Your task to perform on an android device: open app "Venmo" Image 0: 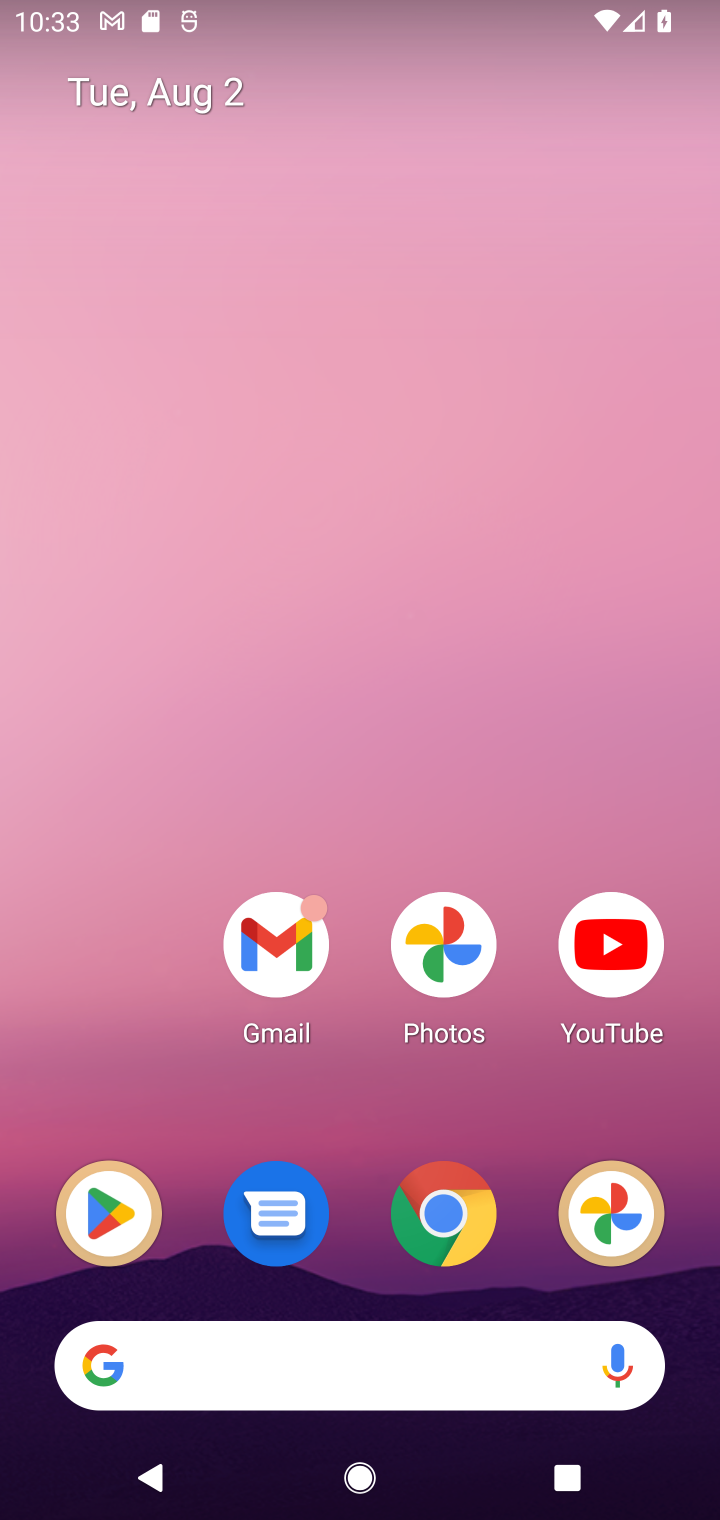
Step 0: click (121, 1236)
Your task to perform on an android device: open app "Venmo" Image 1: 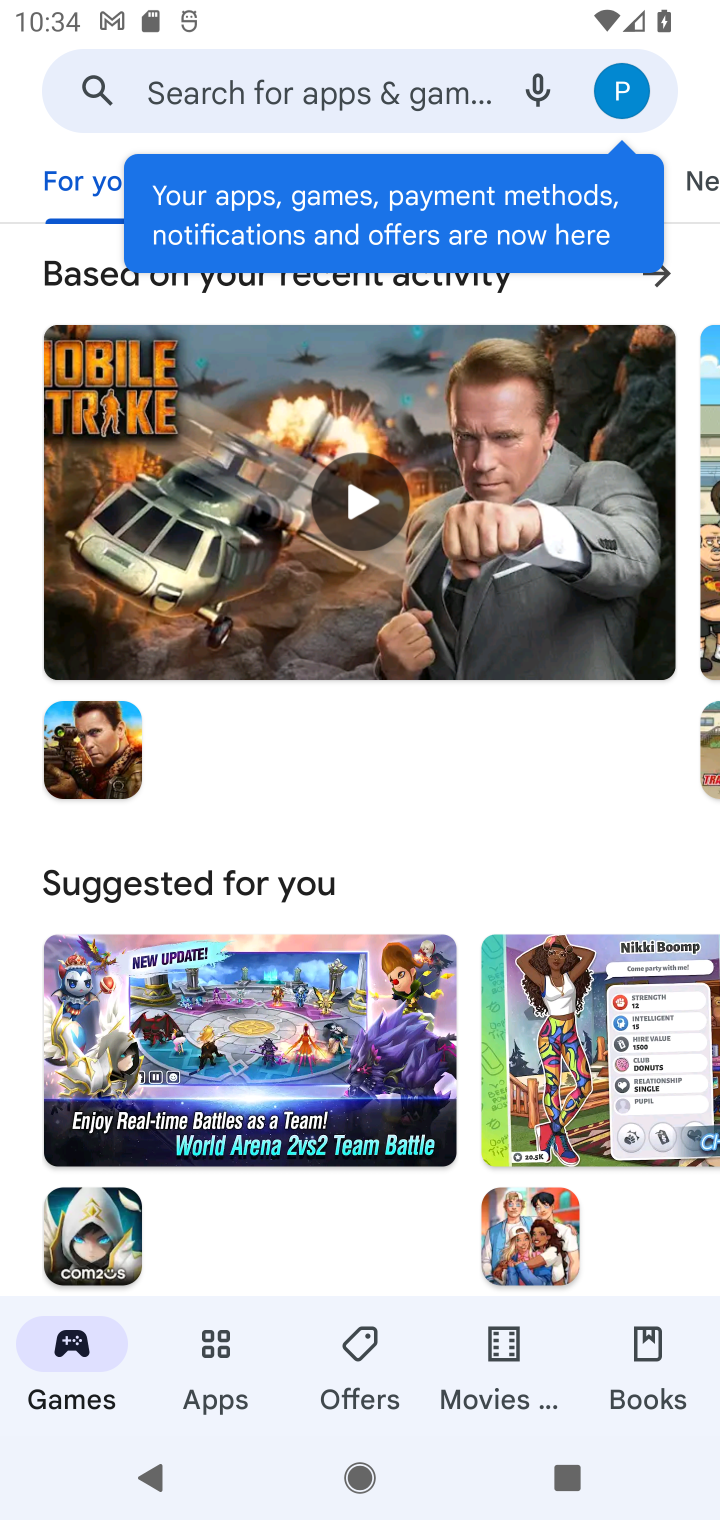
Step 1: click (214, 1396)
Your task to perform on an android device: open app "Venmo" Image 2: 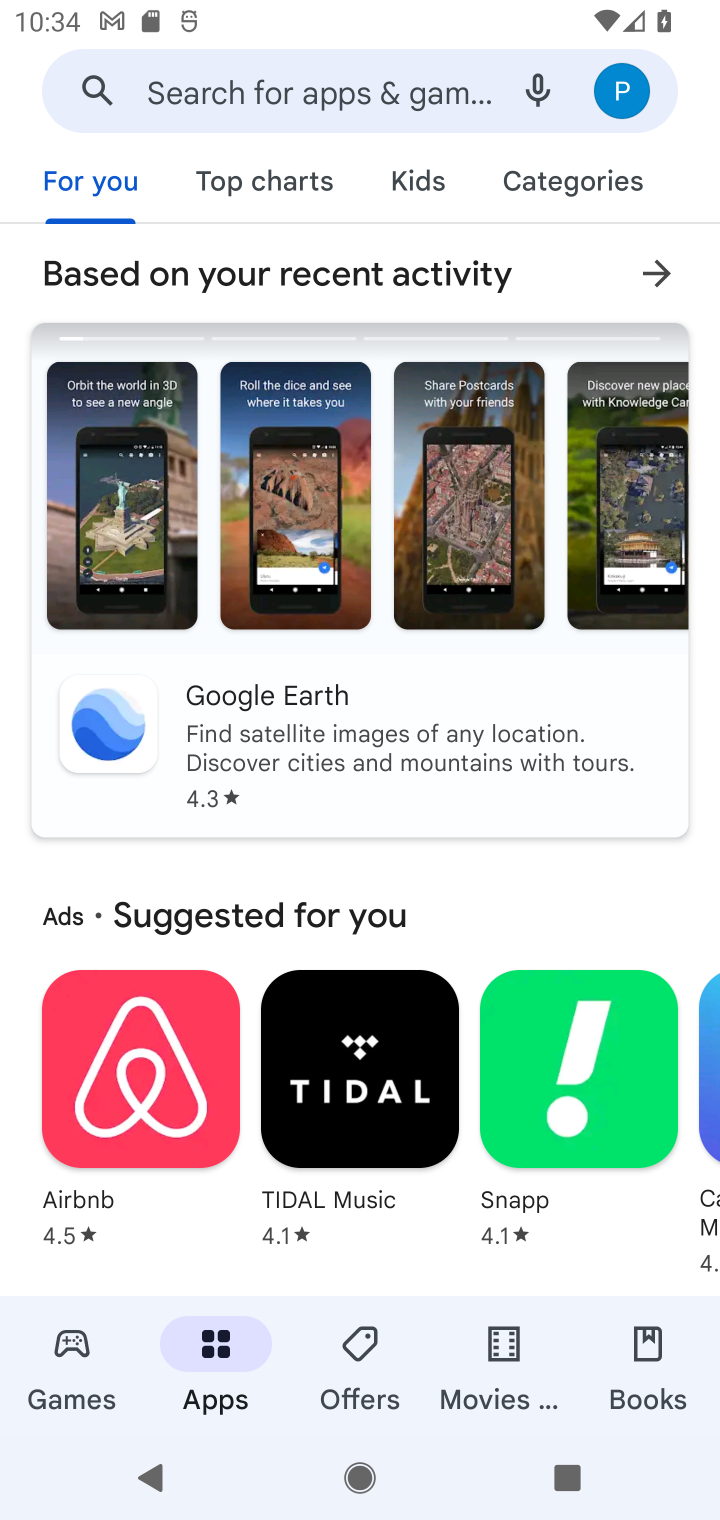
Step 2: click (297, 108)
Your task to perform on an android device: open app "Venmo" Image 3: 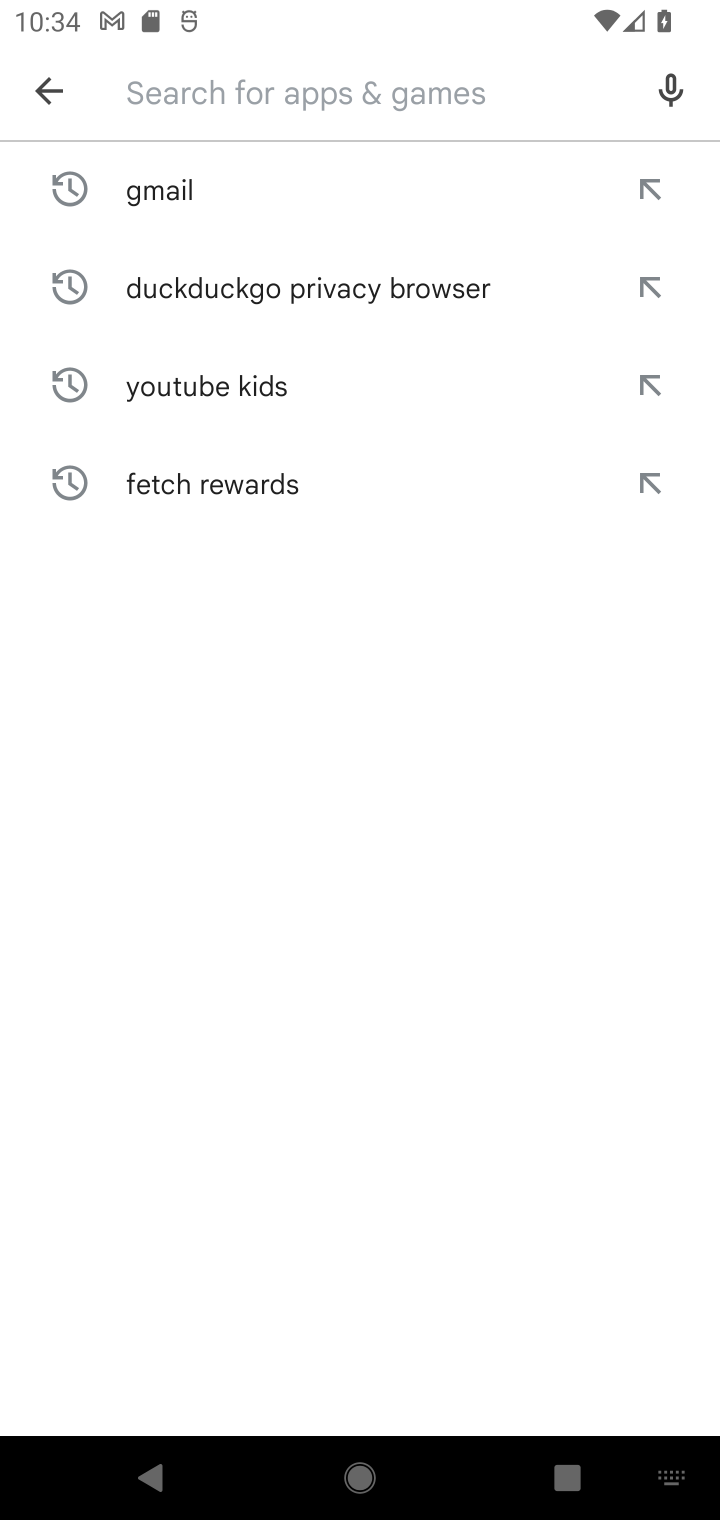
Step 3: type "Venmo"
Your task to perform on an android device: open app "Venmo" Image 4: 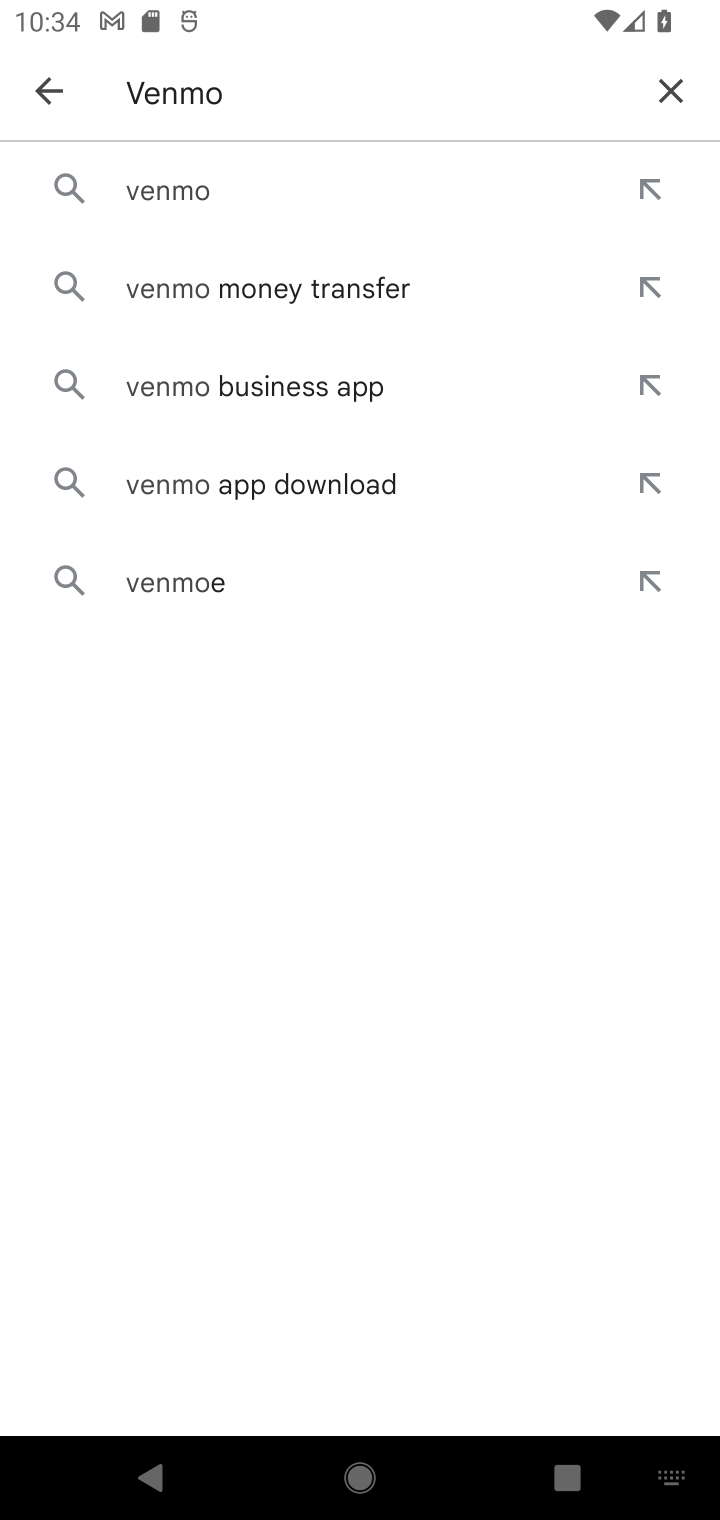
Step 4: click (179, 169)
Your task to perform on an android device: open app "Venmo" Image 5: 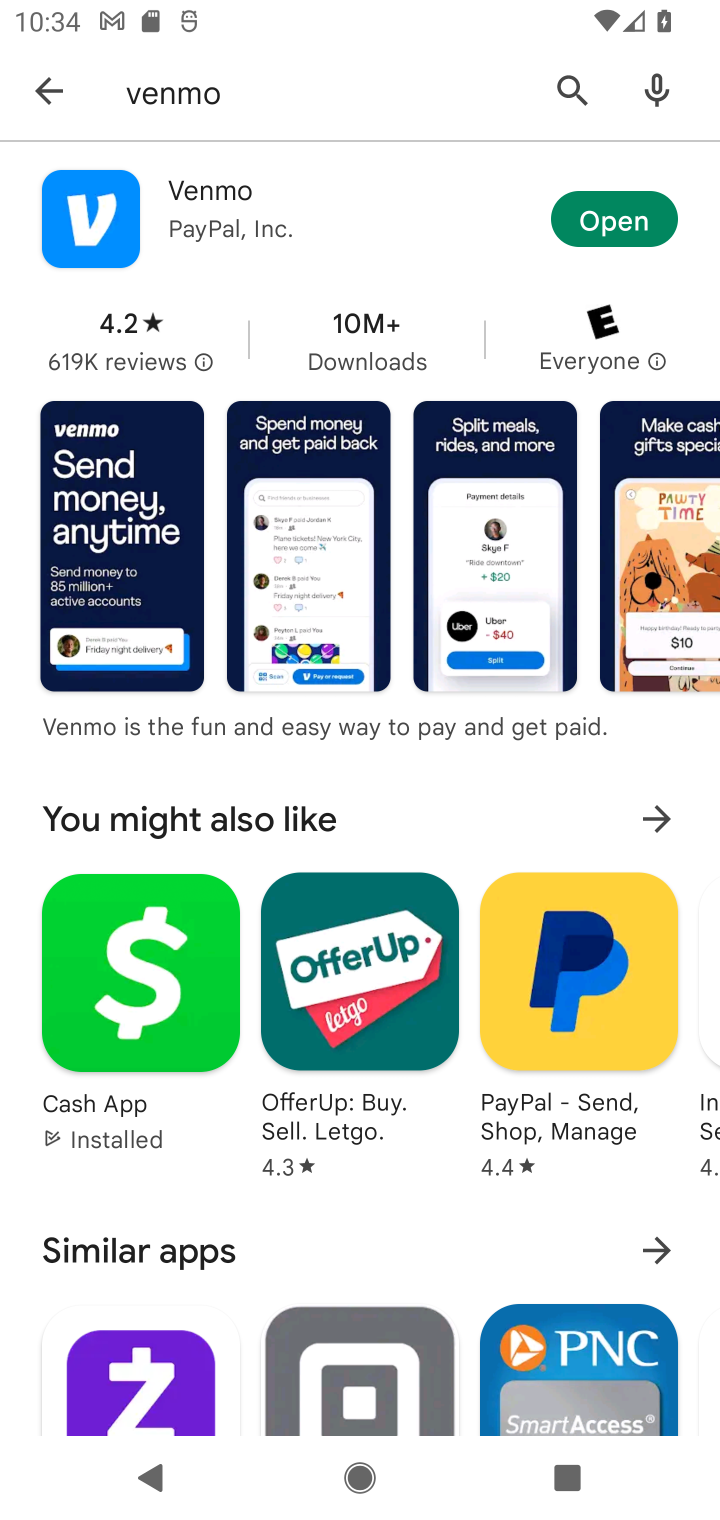
Step 5: click (618, 208)
Your task to perform on an android device: open app "Venmo" Image 6: 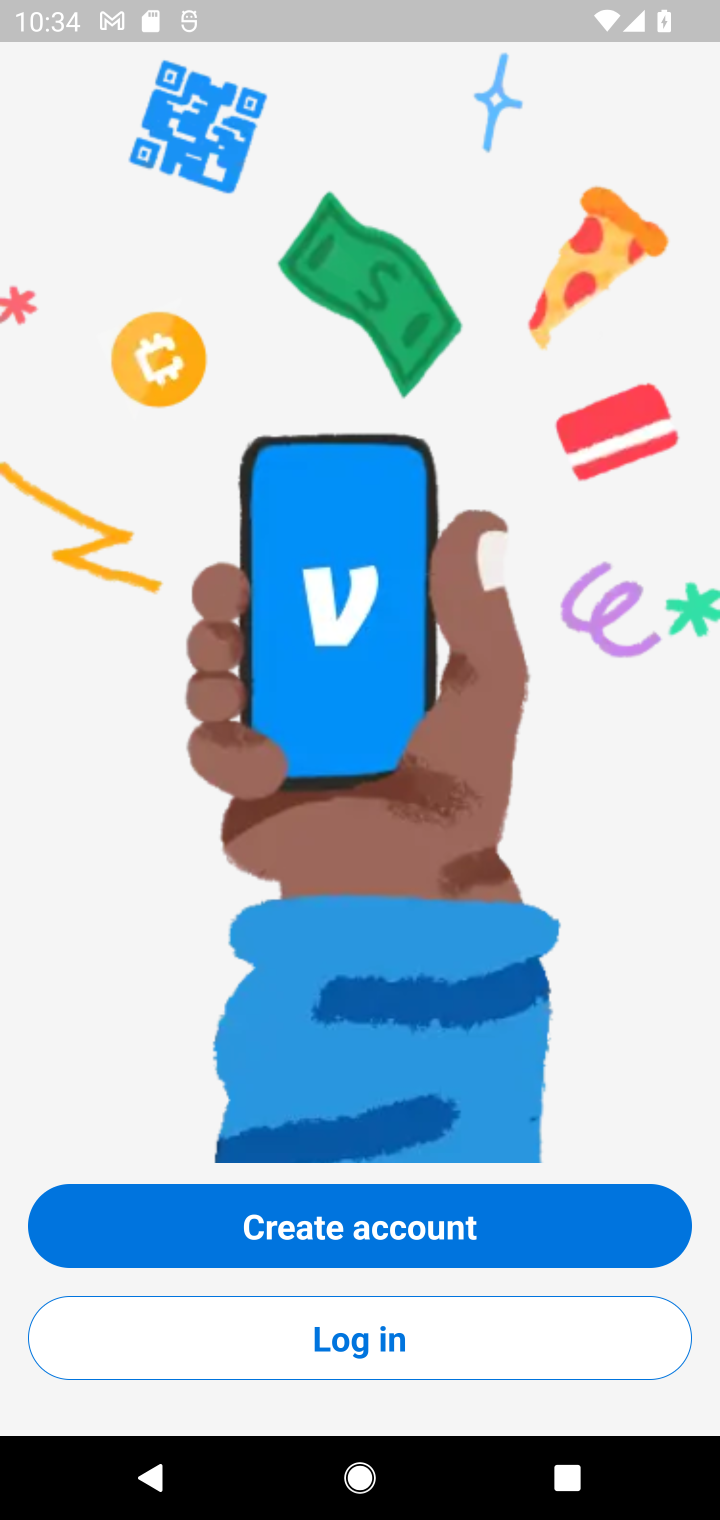
Step 6: task complete